Your task to perform on an android device: Show me recent news Image 0: 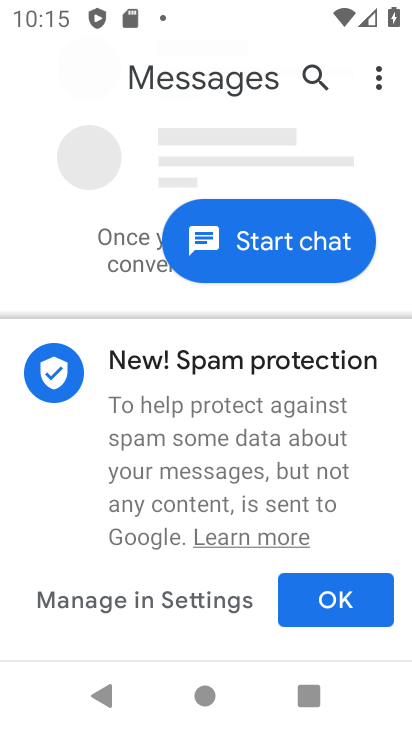
Step 0: press back button
Your task to perform on an android device: Show me recent news Image 1: 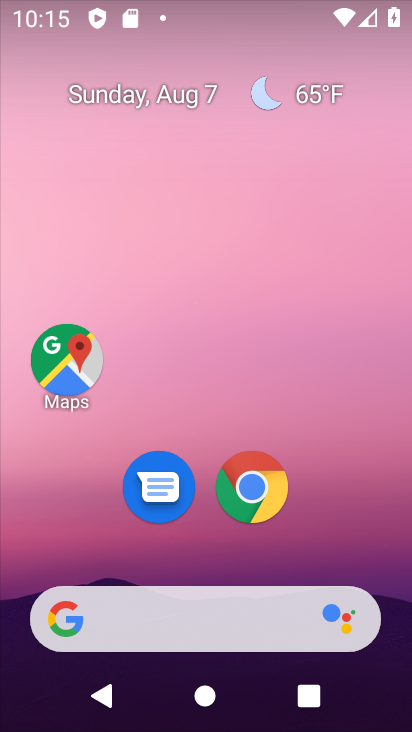
Step 1: drag from (4, 215) to (388, 158)
Your task to perform on an android device: Show me recent news Image 2: 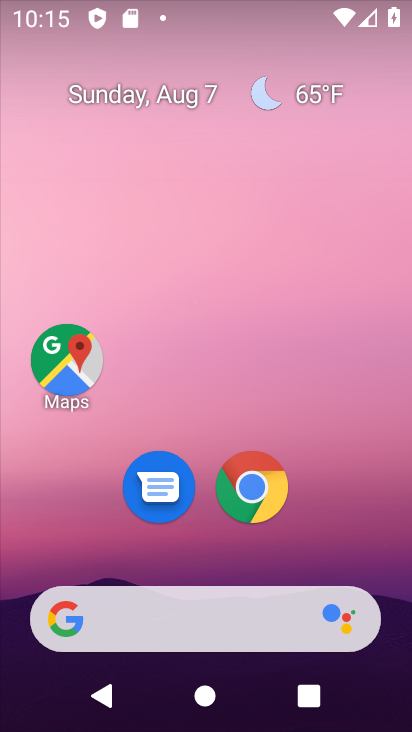
Step 2: drag from (2, 189) to (409, 98)
Your task to perform on an android device: Show me recent news Image 3: 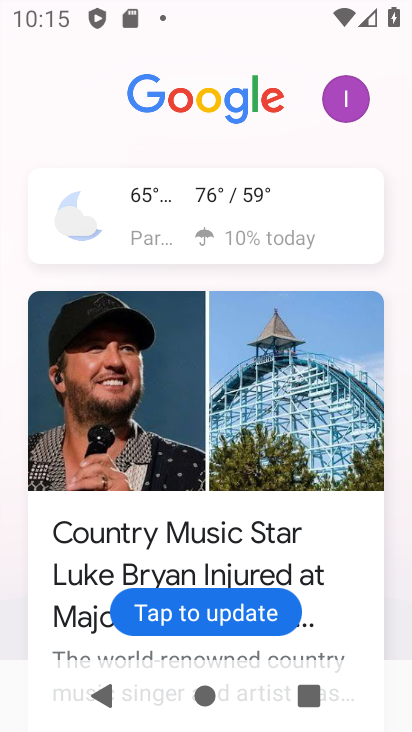
Step 3: drag from (163, 568) to (206, 208)
Your task to perform on an android device: Show me recent news Image 4: 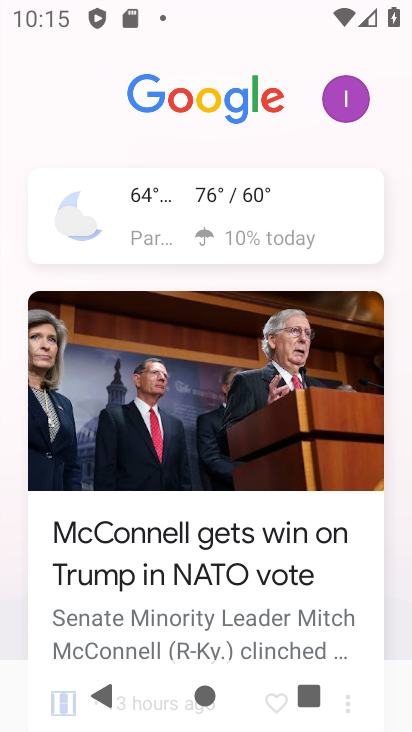
Step 4: drag from (277, 568) to (291, 260)
Your task to perform on an android device: Show me recent news Image 5: 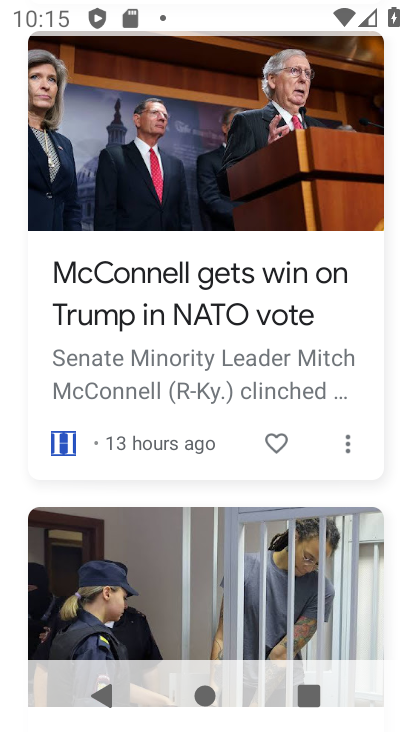
Step 5: drag from (232, 605) to (265, 288)
Your task to perform on an android device: Show me recent news Image 6: 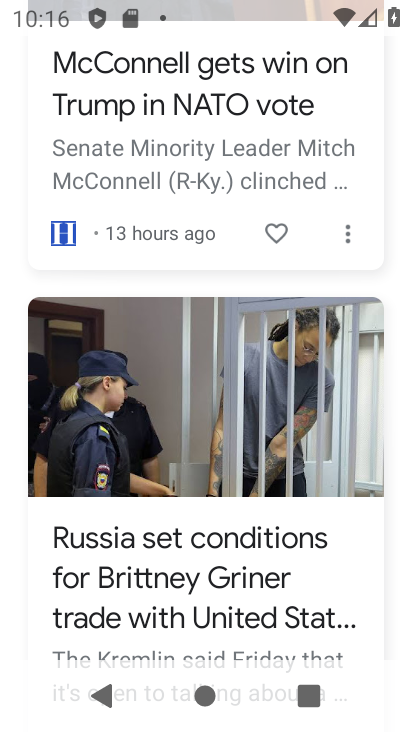
Step 6: drag from (236, 579) to (261, 332)
Your task to perform on an android device: Show me recent news Image 7: 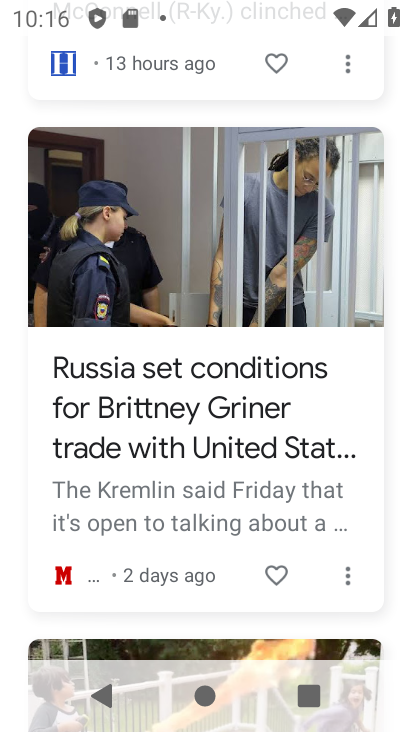
Step 7: drag from (264, 533) to (268, 209)
Your task to perform on an android device: Show me recent news Image 8: 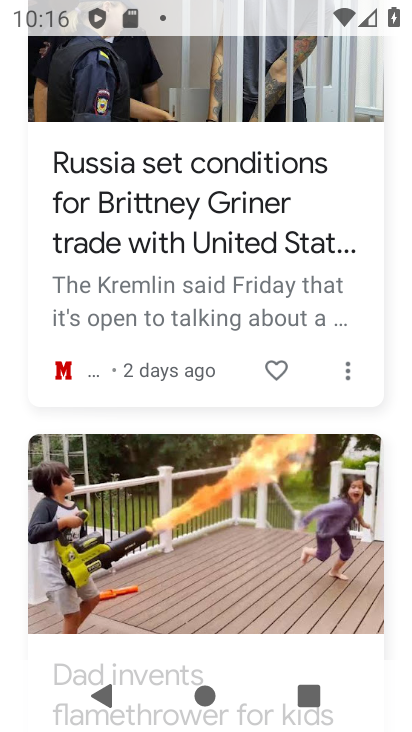
Step 8: drag from (244, 499) to (231, 266)
Your task to perform on an android device: Show me recent news Image 9: 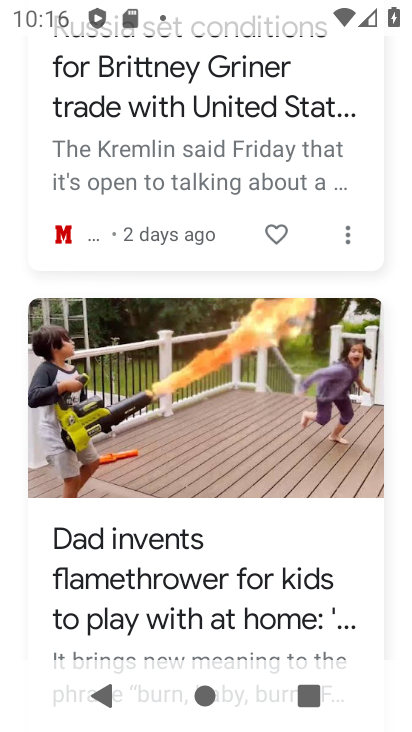
Step 9: drag from (283, 595) to (289, 302)
Your task to perform on an android device: Show me recent news Image 10: 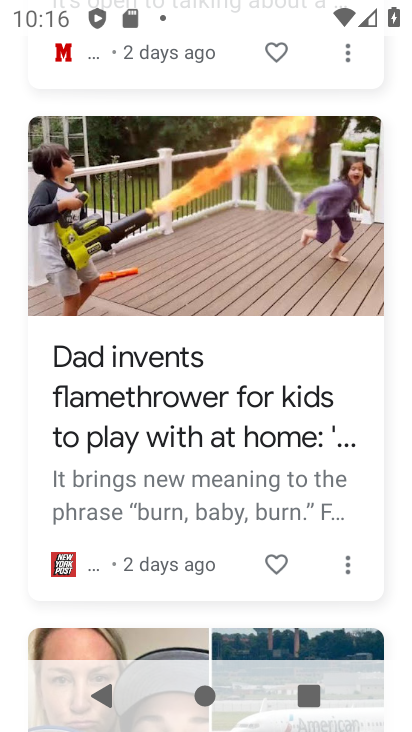
Step 10: drag from (271, 576) to (293, 322)
Your task to perform on an android device: Show me recent news Image 11: 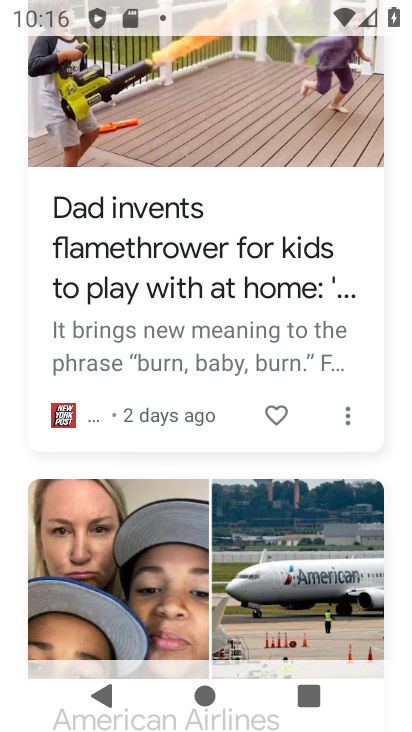
Step 11: drag from (292, 573) to (309, 267)
Your task to perform on an android device: Show me recent news Image 12: 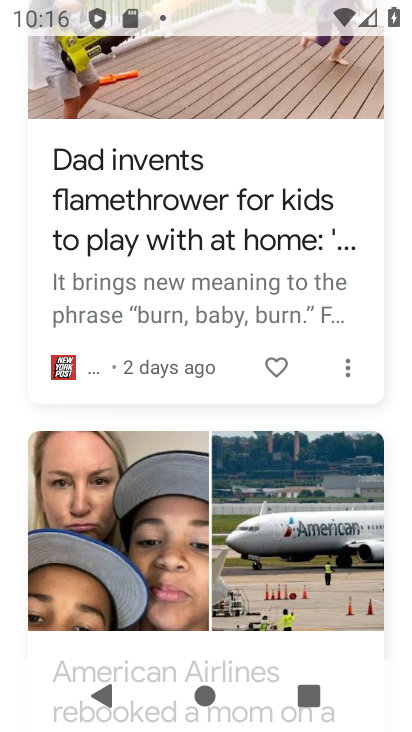
Step 12: drag from (295, 607) to (278, 228)
Your task to perform on an android device: Show me recent news Image 13: 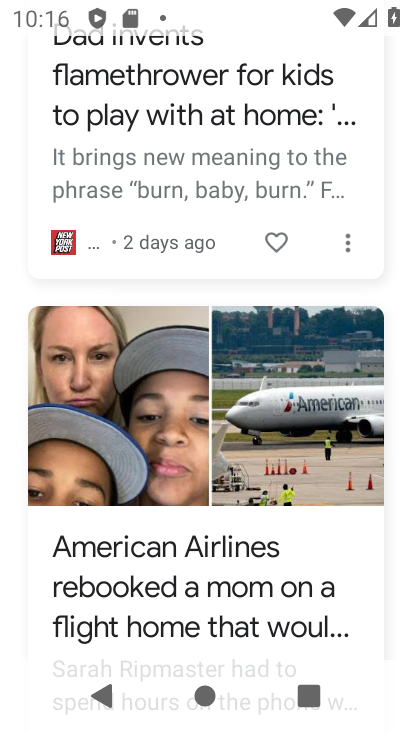
Step 13: drag from (298, 609) to (321, 258)
Your task to perform on an android device: Show me recent news Image 14: 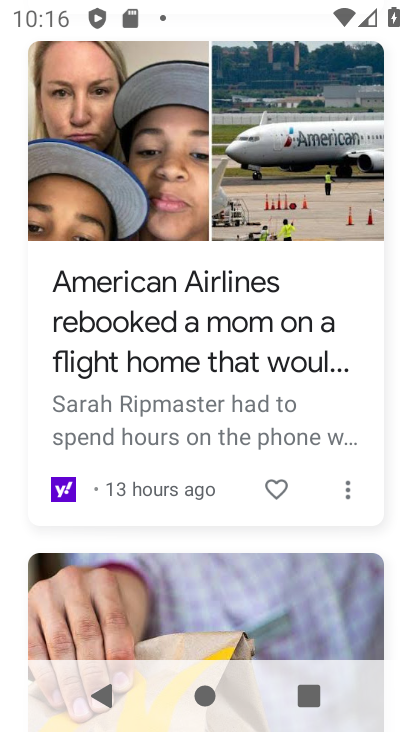
Step 14: drag from (276, 603) to (298, 189)
Your task to perform on an android device: Show me recent news Image 15: 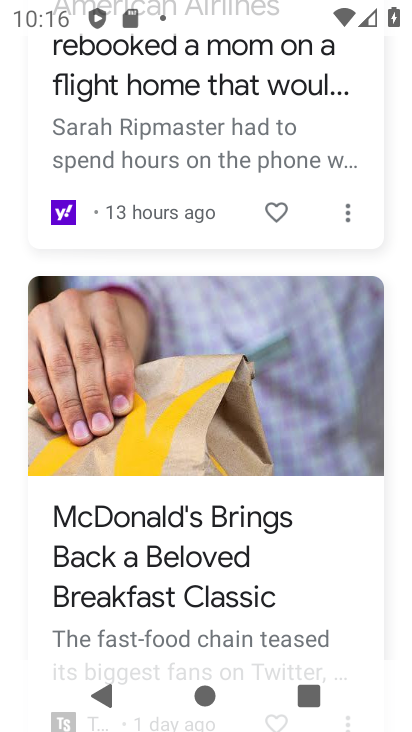
Step 15: drag from (275, 204) to (283, 588)
Your task to perform on an android device: Show me recent news Image 16: 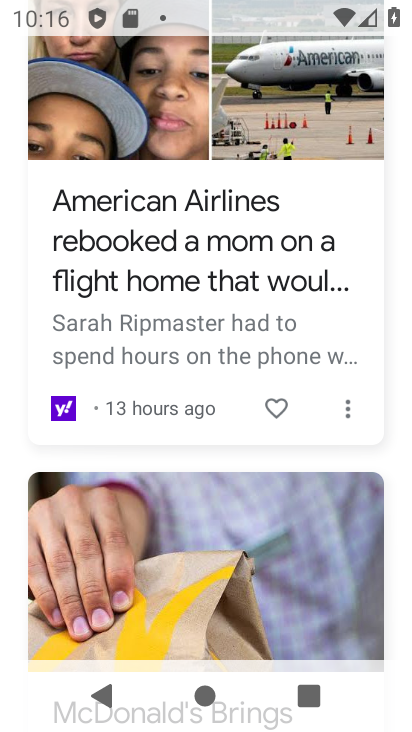
Step 16: drag from (274, 113) to (291, 568)
Your task to perform on an android device: Show me recent news Image 17: 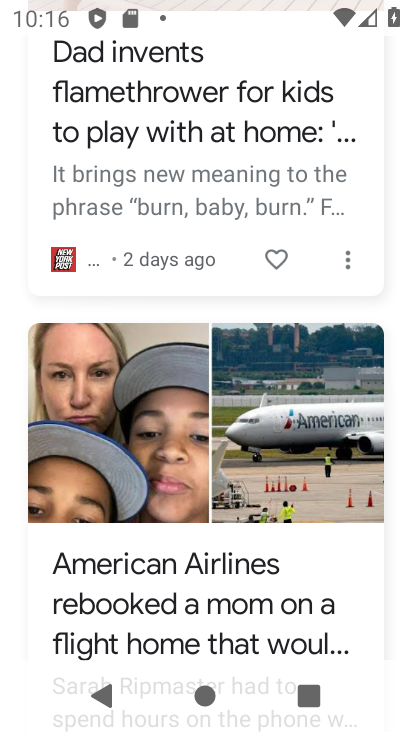
Step 17: drag from (266, 101) to (248, 508)
Your task to perform on an android device: Show me recent news Image 18: 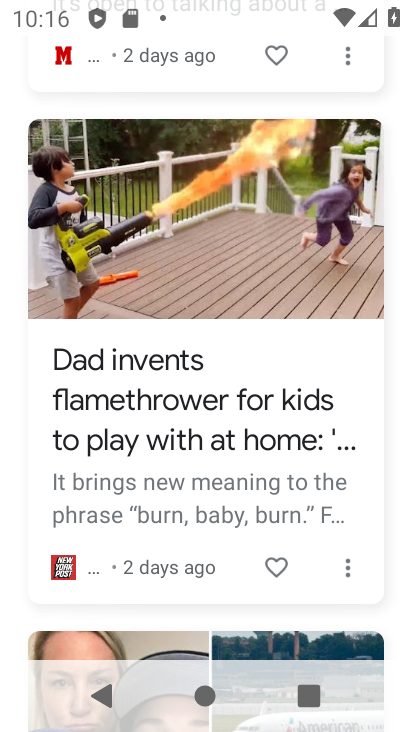
Step 18: drag from (246, 207) to (260, 352)
Your task to perform on an android device: Show me recent news Image 19: 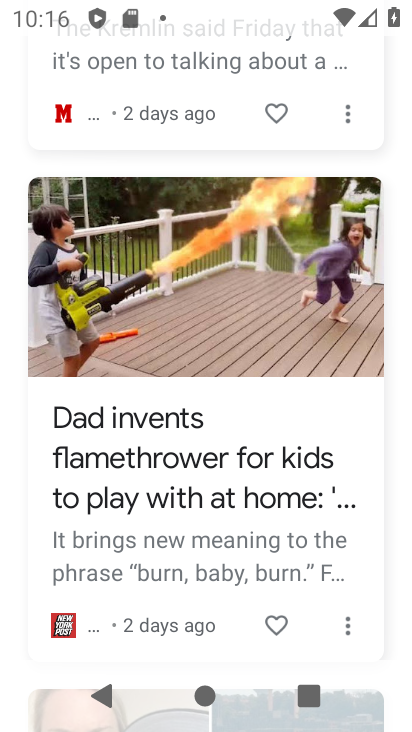
Step 19: click (287, 684)
Your task to perform on an android device: Show me recent news Image 20: 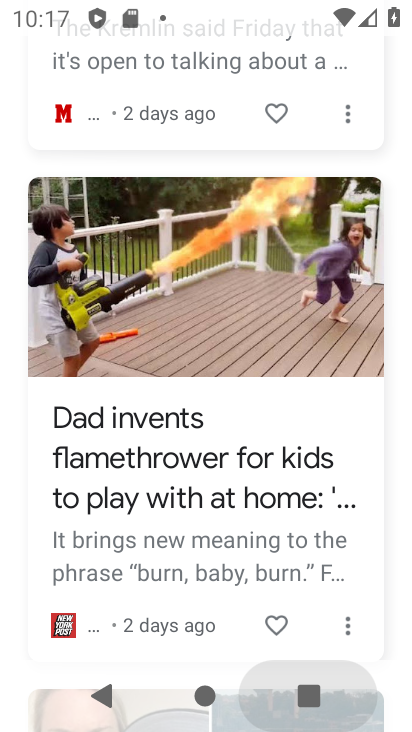
Step 20: task complete